Your task to perform on an android device: What's the news in Singapore? Image 0: 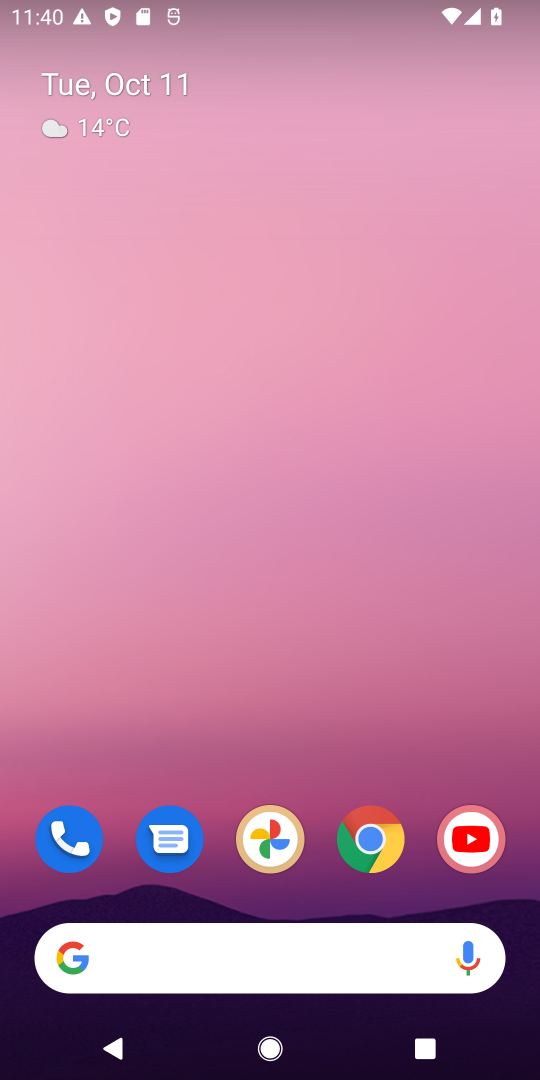
Step 0: click (374, 835)
Your task to perform on an android device: What's the news in Singapore? Image 1: 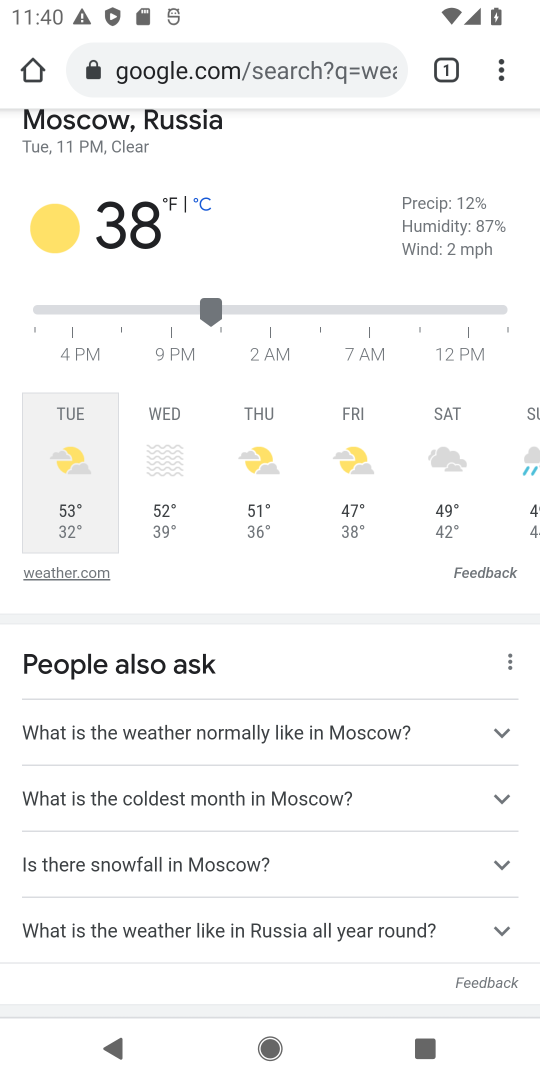
Step 1: click (246, 61)
Your task to perform on an android device: What's the news in Singapore? Image 2: 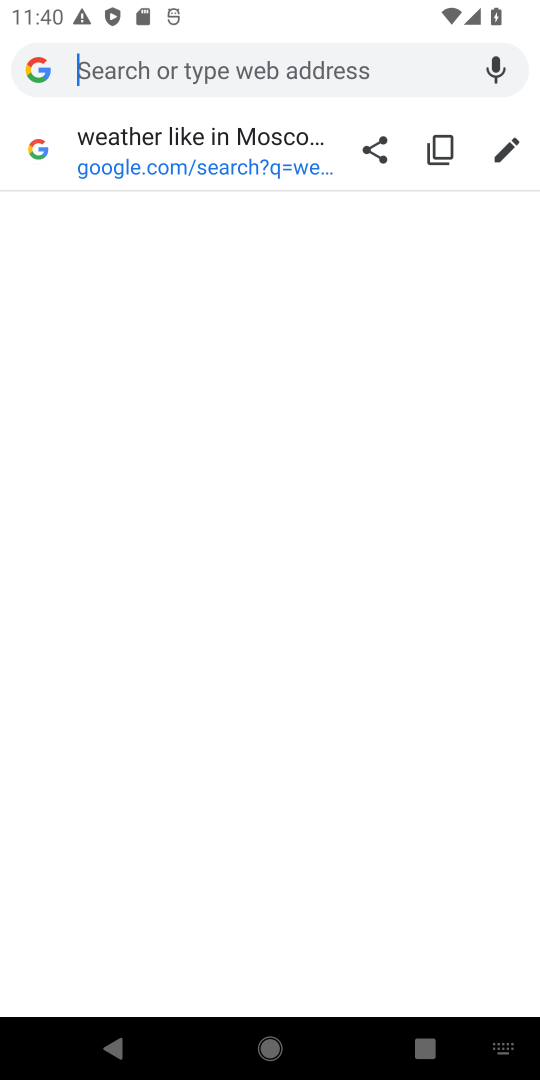
Step 2: type "news in Singapore"
Your task to perform on an android device: What's the news in Singapore? Image 3: 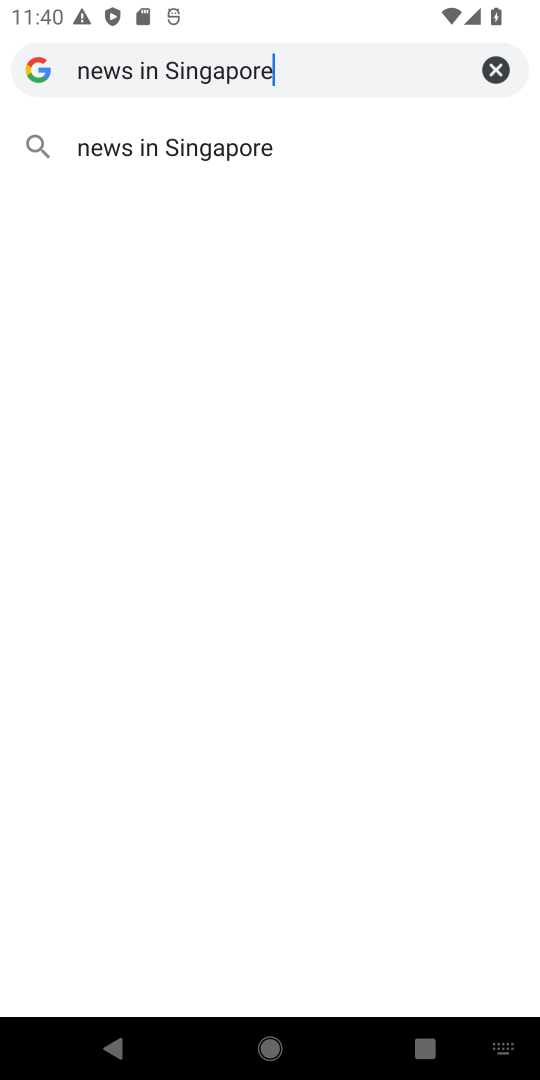
Step 3: click (190, 159)
Your task to perform on an android device: What's the news in Singapore? Image 4: 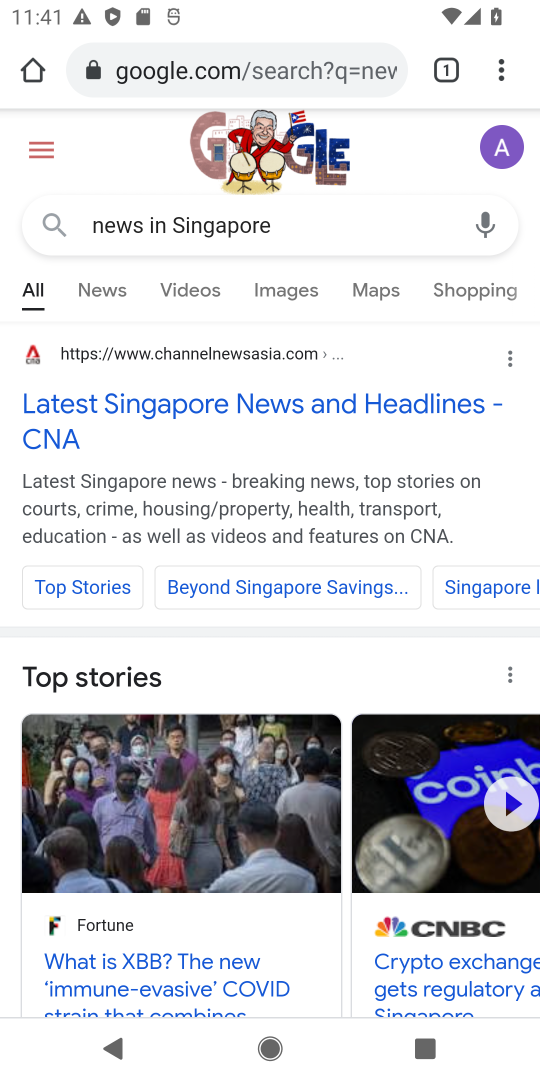
Step 4: click (91, 279)
Your task to perform on an android device: What's the news in Singapore? Image 5: 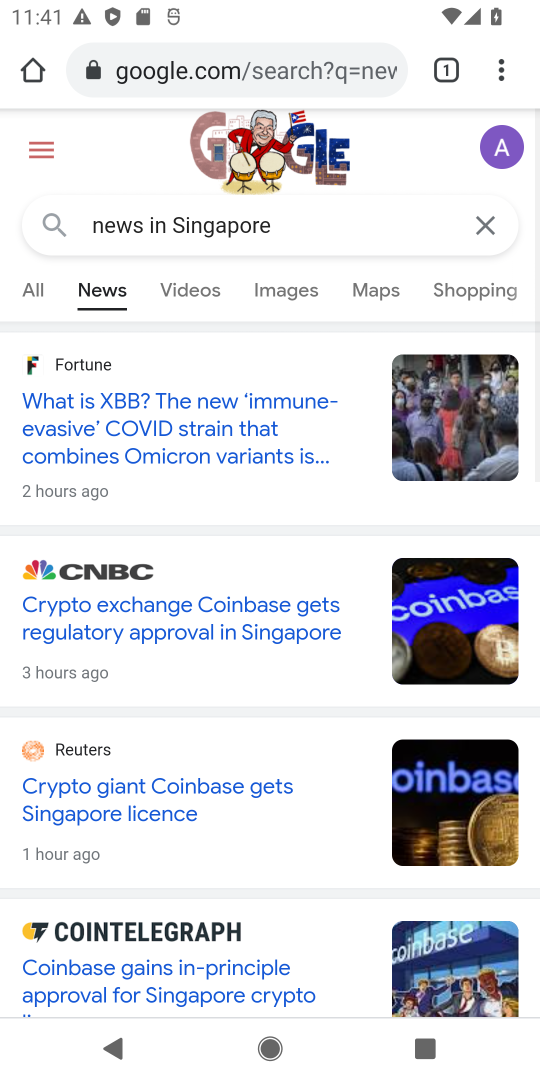
Step 5: task complete